Your task to perform on an android device: change text size in settings app Image 0: 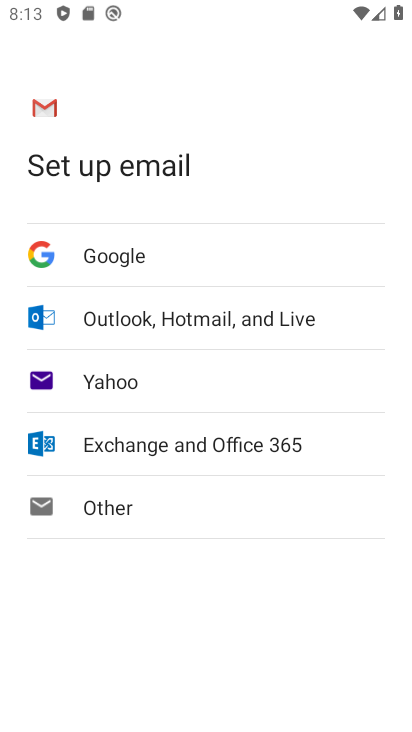
Step 0: drag from (251, 628) to (242, 557)
Your task to perform on an android device: change text size in settings app Image 1: 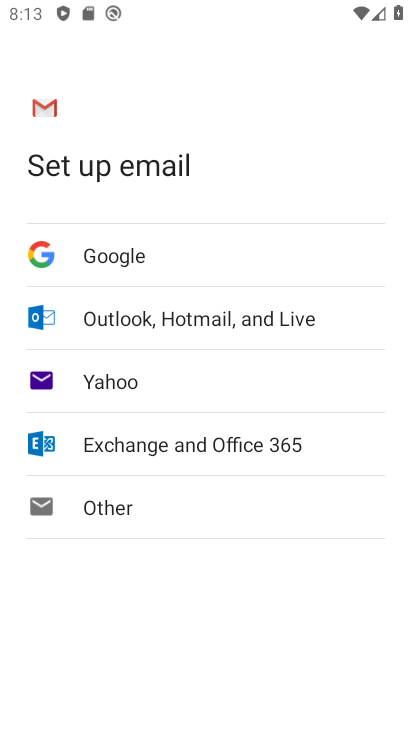
Step 1: press home button
Your task to perform on an android device: change text size in settings app Image 2: 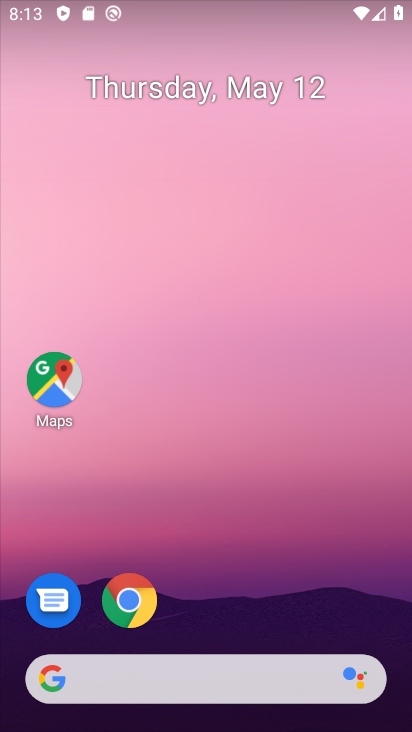
Step 2: drag from (303, 607) to (334, 173)
Your task to perform on an android device: change text size in settings app Image 3: 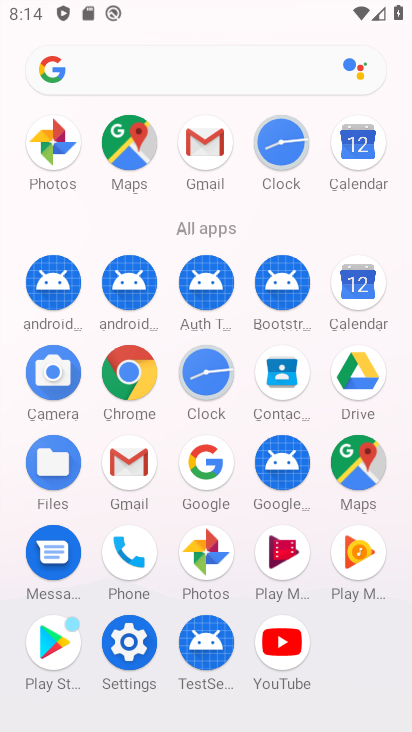
Step 3: click (154, 636)
Your task to perform on an android device: change text size in settings app Image 4: 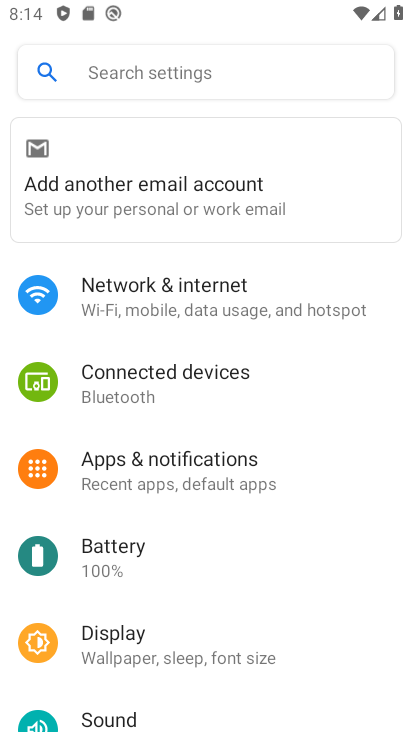
Step 4: drag from (175, 592) to (224, 225)
Your task to perform on an android device: change text size in settings app Image 5: 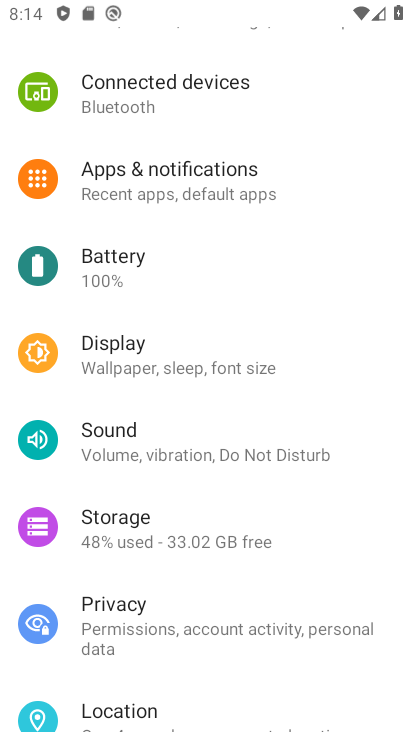
Step 5: drag from (208, 623) to (209, 247)
Your task to perform on an android device: change text size in settings app Image 6: 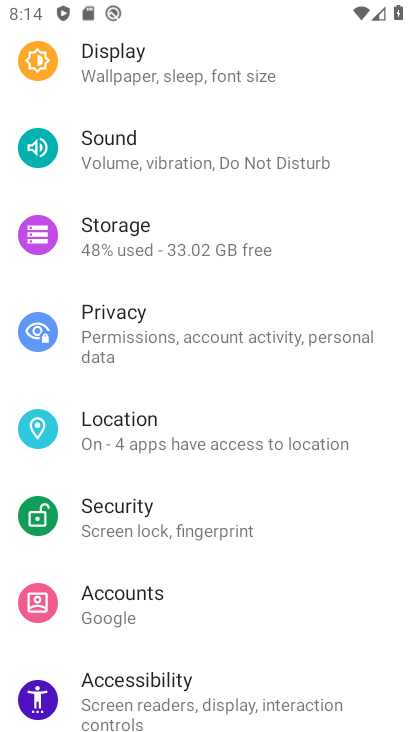
Step 6: drag from (272, 603) to (230, 254)
Your task to perform on an android device: change text size in settings app Image 7: 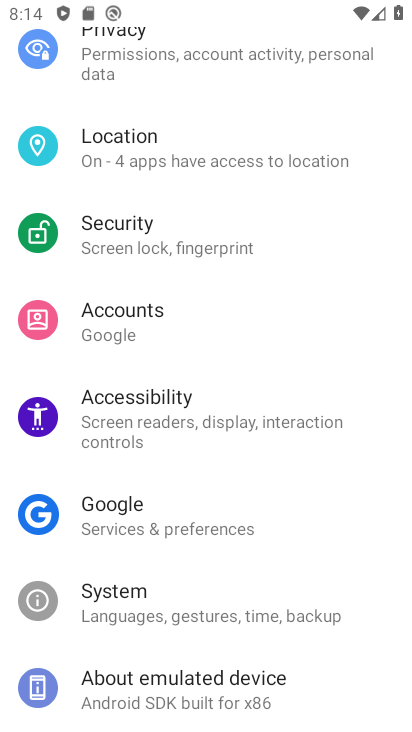
Step 7: drag from (251, 655) to (213, 273)
Your task to perform on an android device: change text size in settings app Image 8: 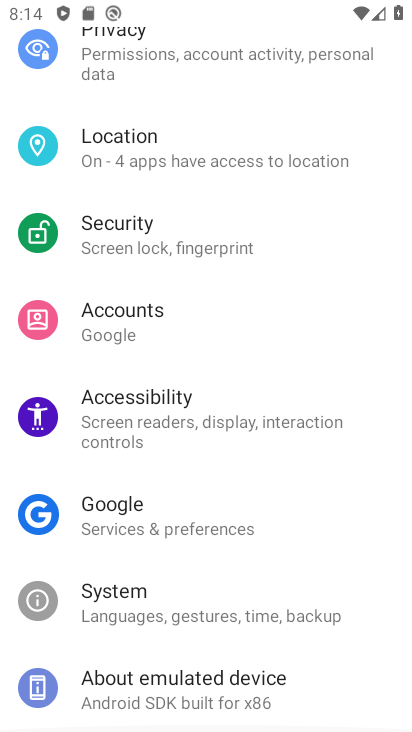
Step 8: drag from (205, 295) to (199, 602)
Your task to perform on an android device: change text size in settings app Image 9: 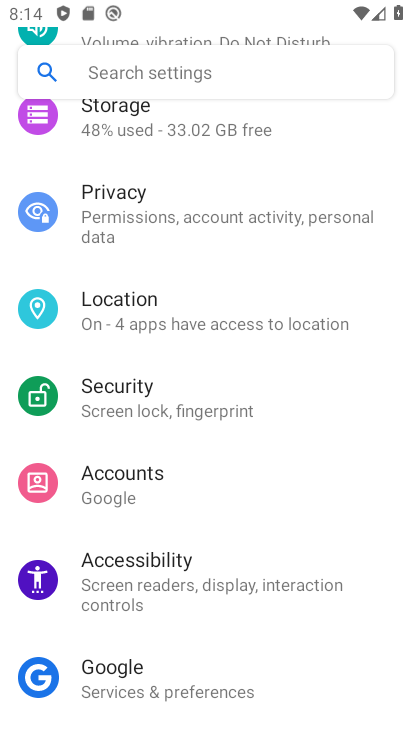
Step 9: drag from (222, 317) to (243, 597)
Your task to perform on an android device: change text size in settings app Image 10: 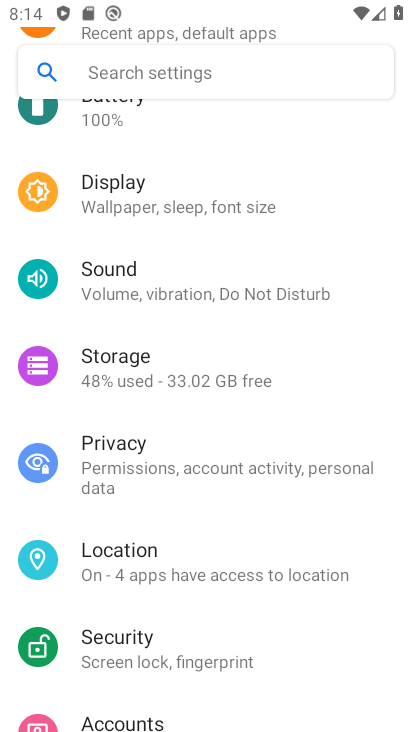
Step 10: drag from (190, 355) to (201, 634)
Your task to perform on an android device: change text size in settings app Image 11: 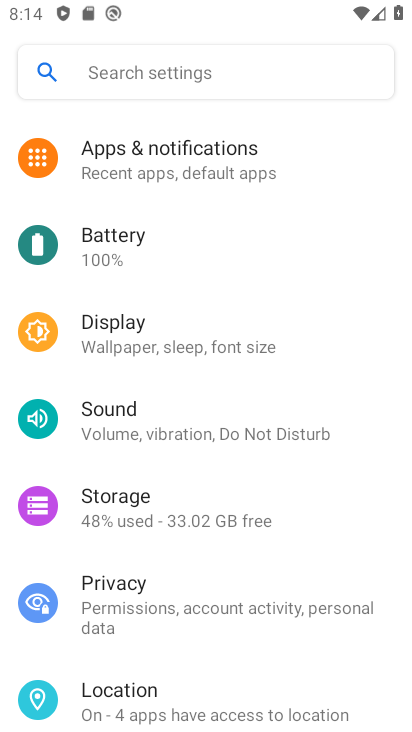
Step 11: click (158, 344)
Your task to perform on an android device: change text size in settings app Image 12: 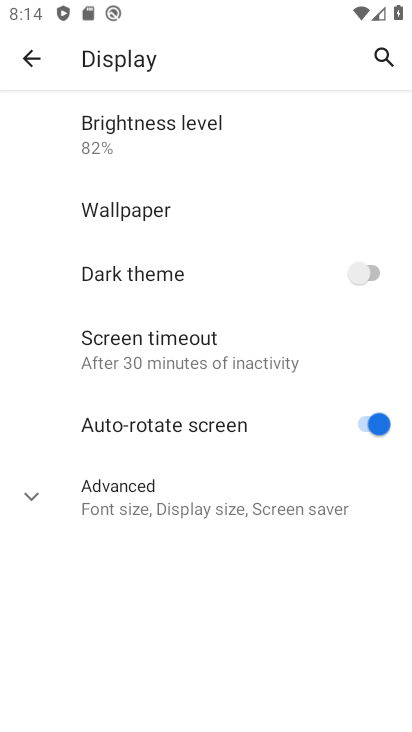
Step 12: click (168, 484)
Your task to perform on an android device: change text size in settings app Image 13: 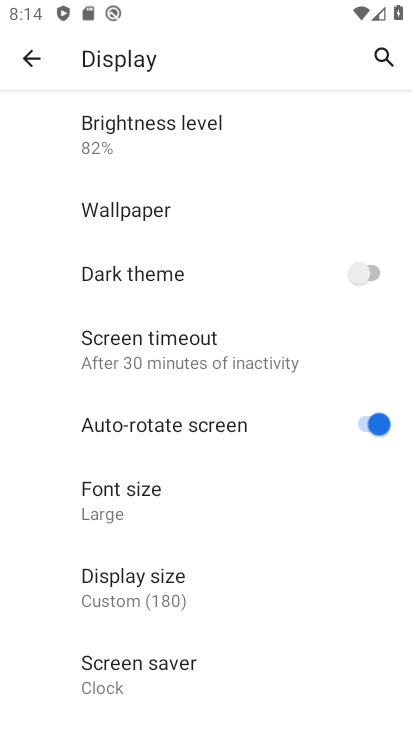
Step 13: click (142, 499)
Your task to perform on an android device: change text size in settings app Image 14: 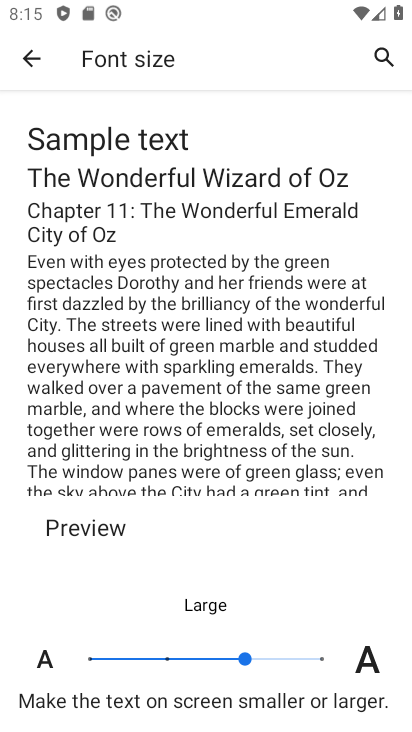
Step 14: click (205, 664)
Your task to perform on an android device: change text size in settings app Image 15: 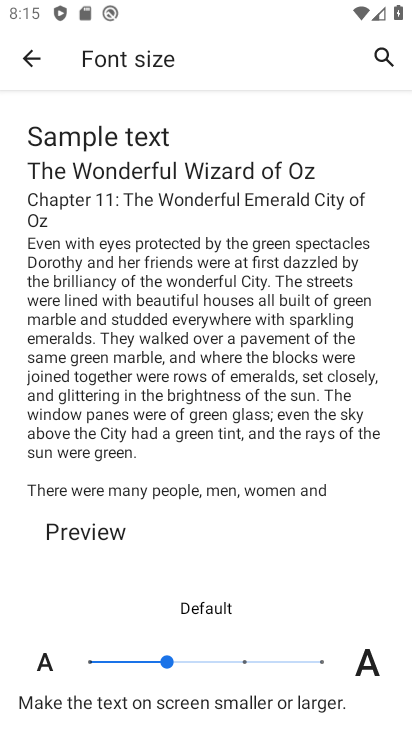
Step 15: task complete